Your task to perform on an android device: turn notification dots off Image 0: 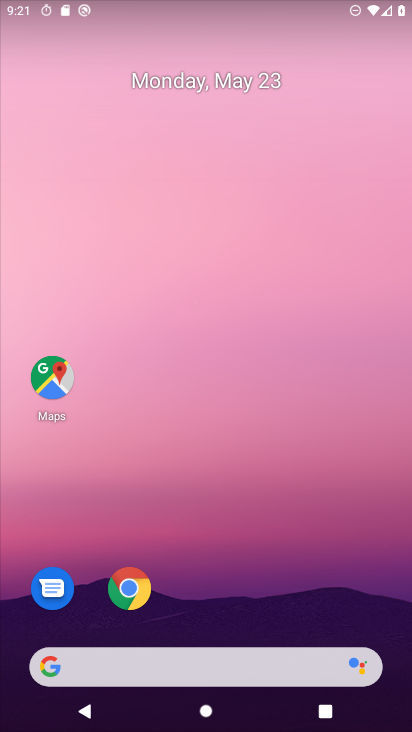
Step 0: drag from (347, 426) to (324, 248)
Your task to perform on an android device: turn notification dots off Image 1: 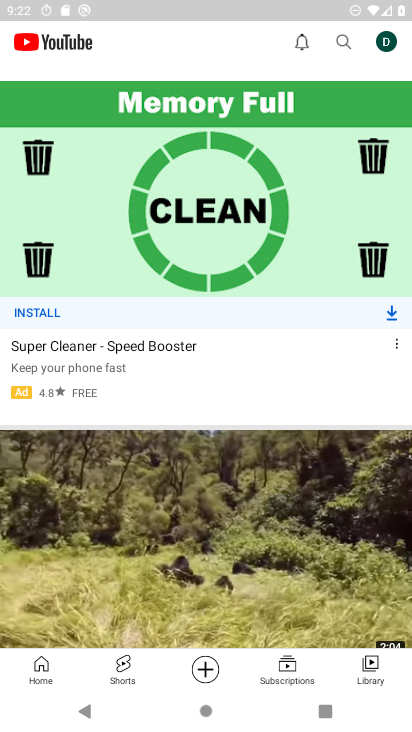
Step 1: press home button
Your task to perform on an android device: turn notification dots off Image 2: 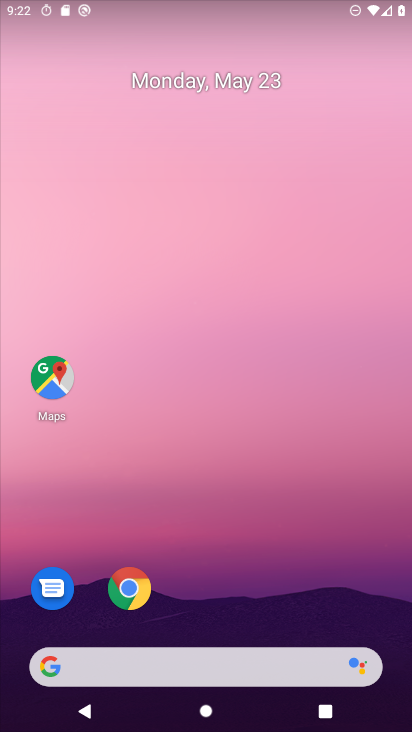
Step 2: drag from (400, 702) to (338, 150)
Your task to perform on an android device: turn notification dots off Image 3: 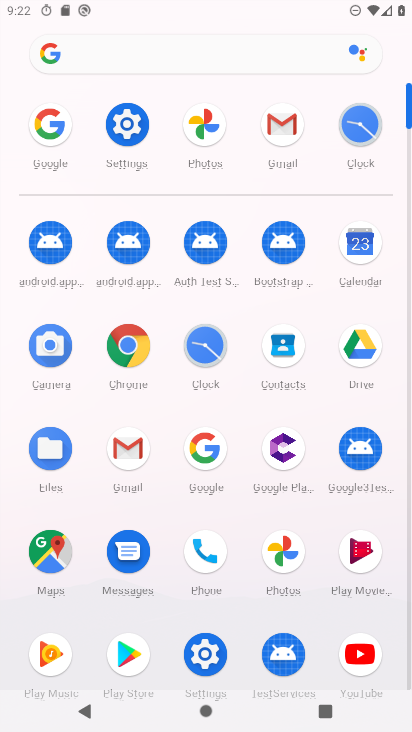
Step 3: click (137, 141)
Your task to perform on an android device: turn notification dots off Image 4: 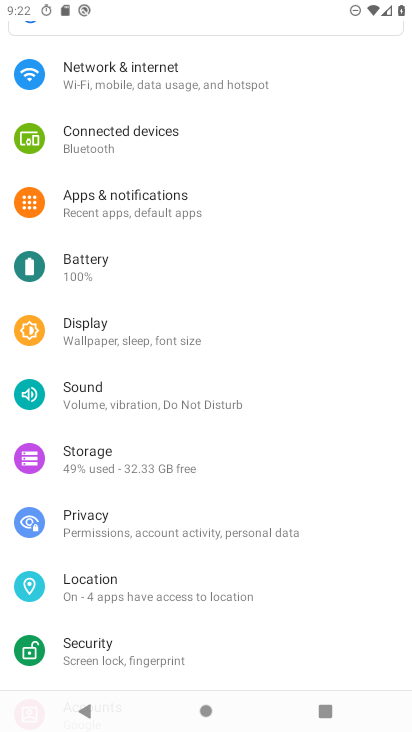
Step 4: click (144, 192)
Your task to perform on an android device: turn notification dots off Image 5: 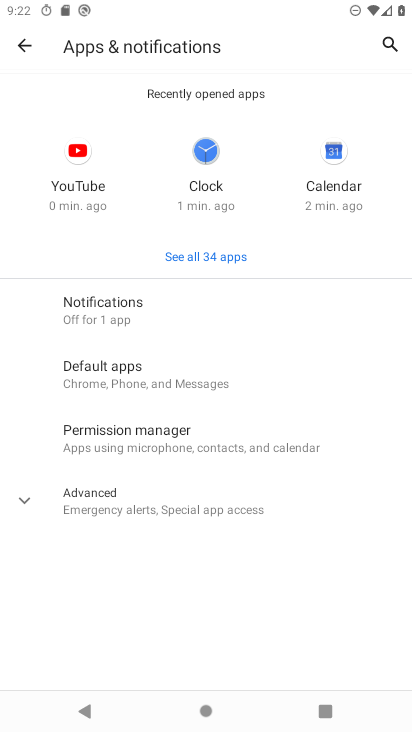
Step 5: click (106, 316)
Your task to perform on an android device: turn notification dots off Image 6: 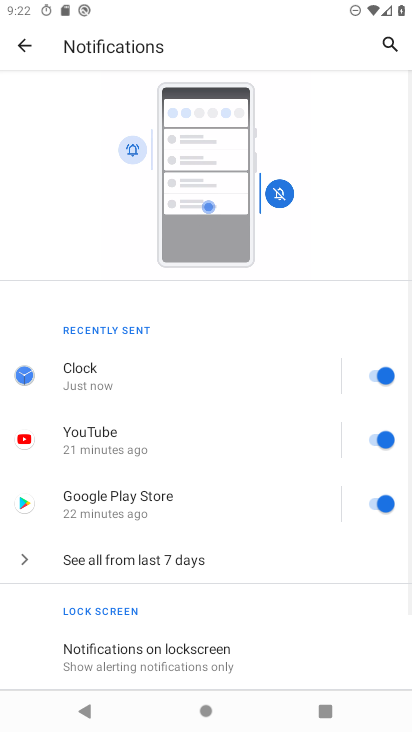
Step 6: drag from (269, 668) to (243, 235)
Your task to perform on an android device: turn notification dots off Image 7: 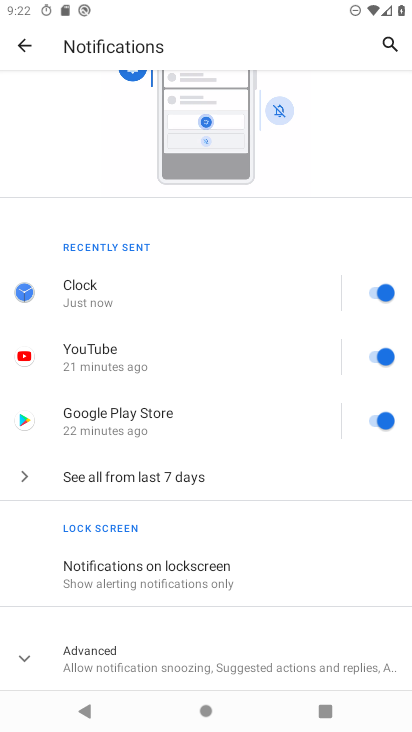
Step 7: click (28, 659)
Your task to perform on an android device: turn notification dots off Image 8: 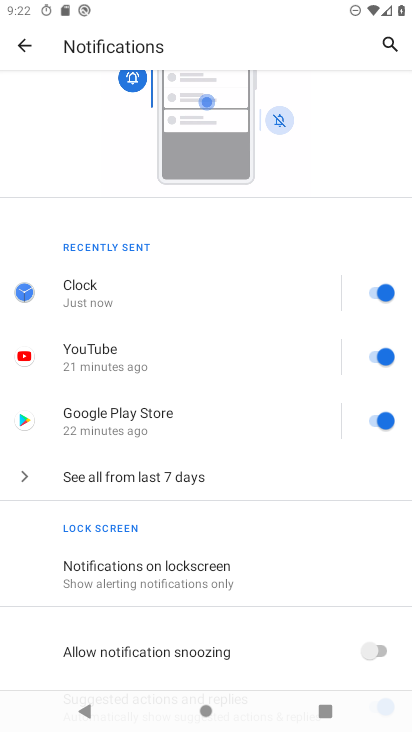
Step 8: drag from (312, 621) to (237, 209)
Your task to perform on an android device: turn notification dots off Image 9: 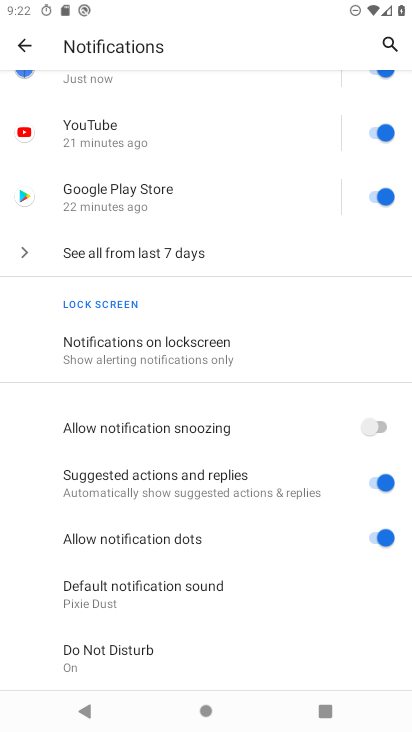
Step 9: click (373, 539)
Your task to perform on an android device: turn notification dots off Image 10: 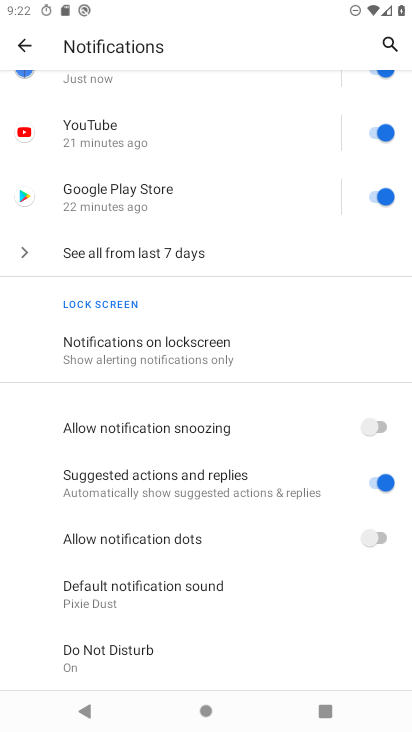
Step 10: task complete